Your task to perform on an android device: turn on location history Image 0: 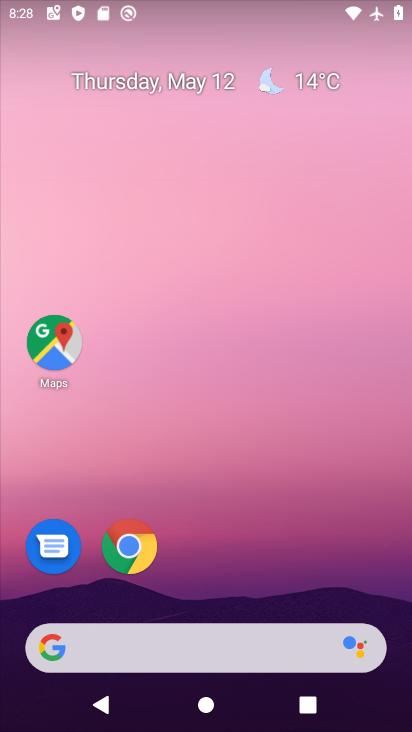
Step 0: drag from (216, 644) to (208, 220)
Your task to perform on an android device: turn on location history Image 1: 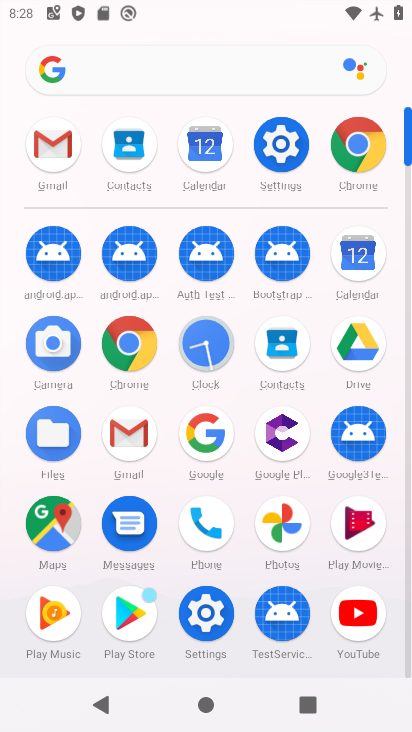
Step 1: click (48, 520)
Your task to perform on an android device: turn on location history Image 2: 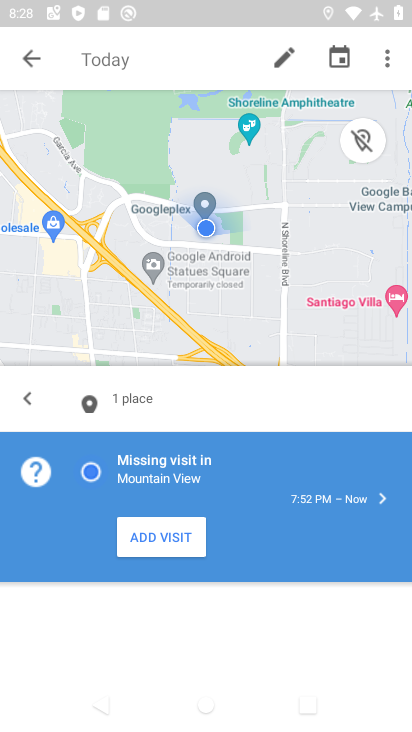
Step 2: click (387, 59)
Your task to perform on an android device: turn on location history Image 3: 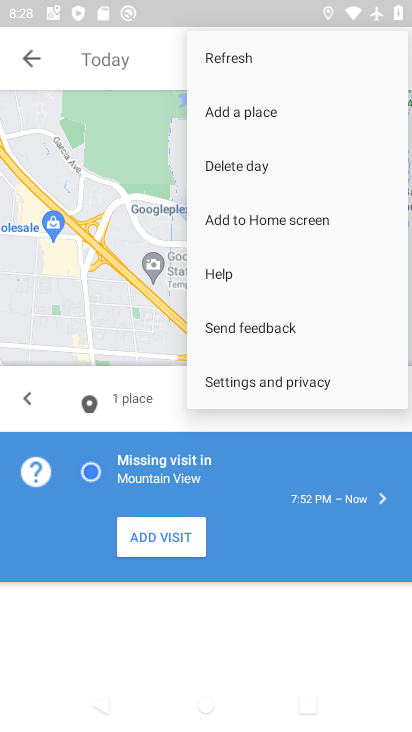
Step 3: click (254, 382)
Your task to perform on an android device: turn on location history Image 4: 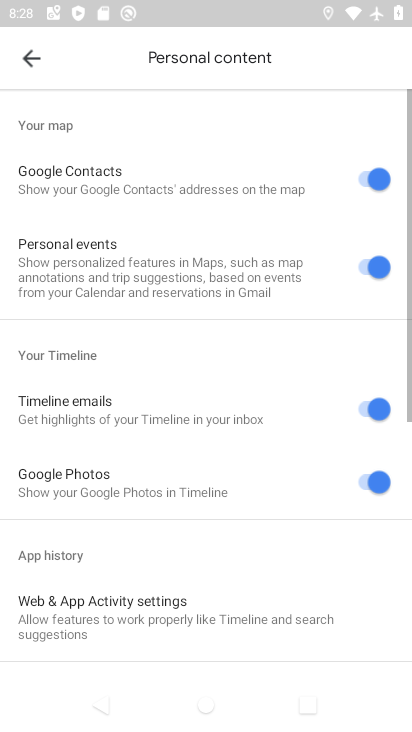
Step 4: drag from (175, 573) to (278, 57)
Your task to perform on an android device: turn on location history Image 5: 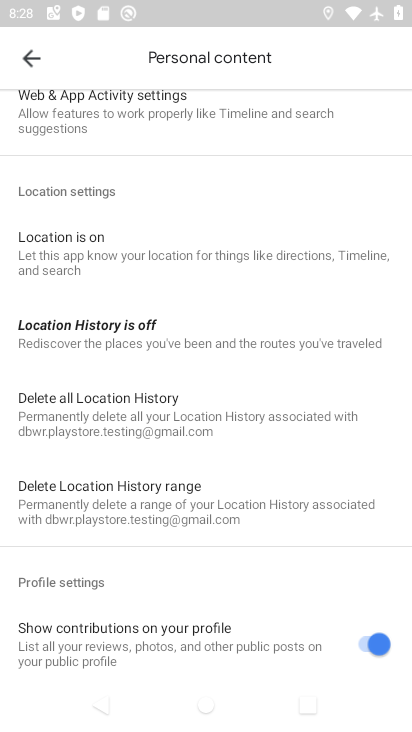
Step 5: click (132, 333)
Your task to perform on an android device: turn on location history Image 6: 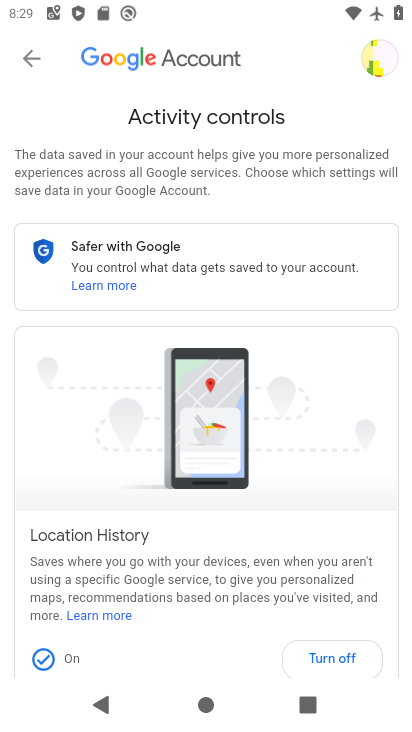
Step 6: task complete